Your task to perform on an android device: Open settings on Google Maps Image 0: 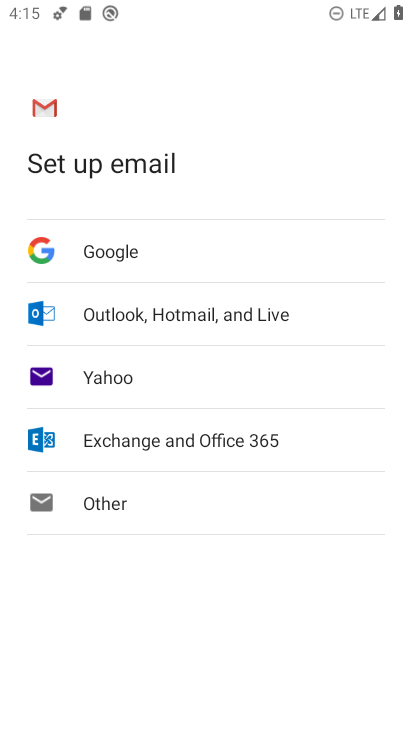
Step 0: press home button
Your task to perform on an android device: Open settings on Google Maps Image 1: 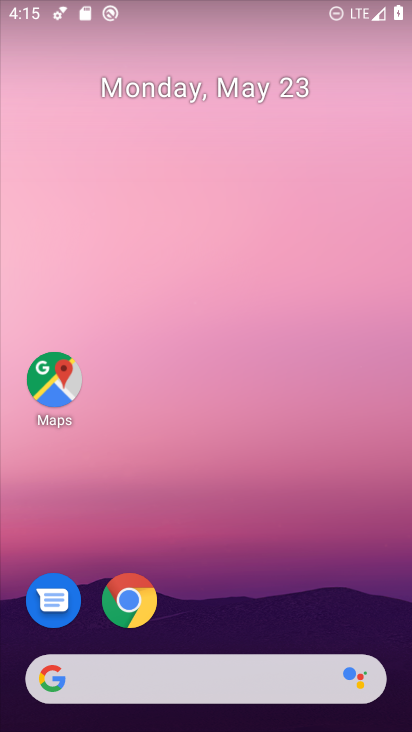
Step 1: click (53, 380)
Your task to perform on an android device: Open settings on Google Maps Image 2: 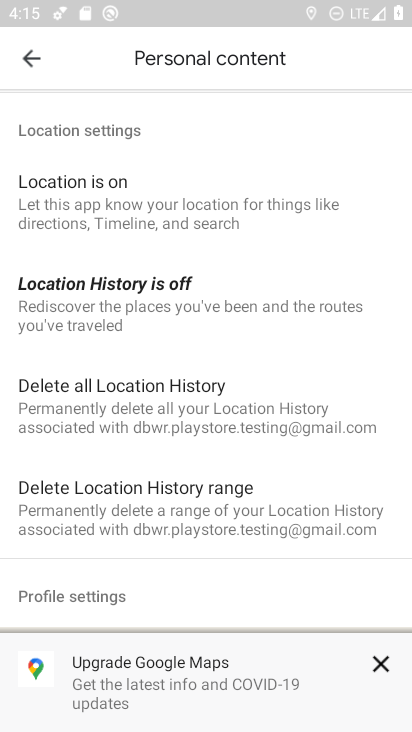
Step 2: click (29, 64)
Your task to perform on an android device: Open settings on Google Maps Image 3: 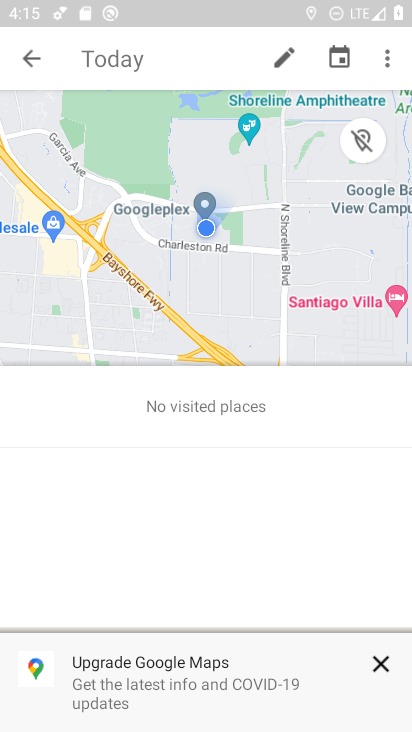
Step 3: click (29, 64)
Your task to perform on an android device: Open settings on Google Maps Image 4: 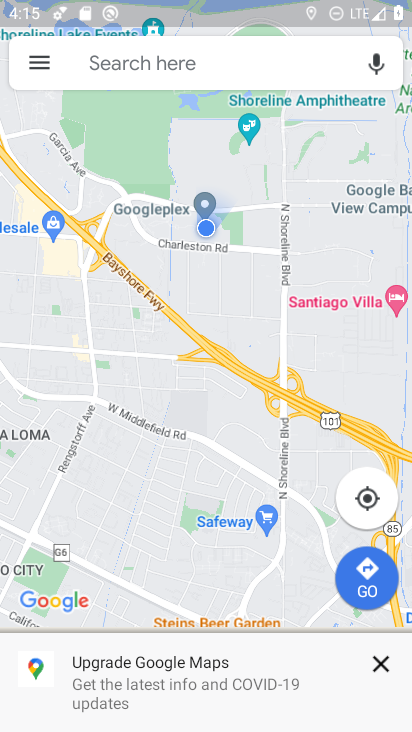
Step 4: click (30, 70)
Your task to perform on an android device: Open settings on Google Maps Image 5: 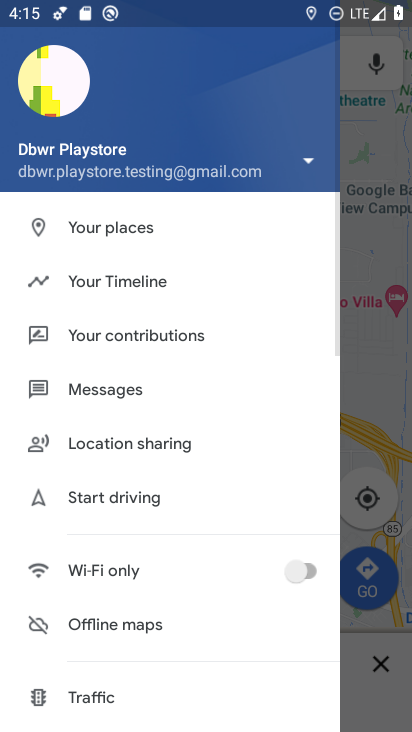
Step 5: drag from (228, 659) to (188, 0)
Your task to perform on an android device: Open settings on Google Maps Image 6: 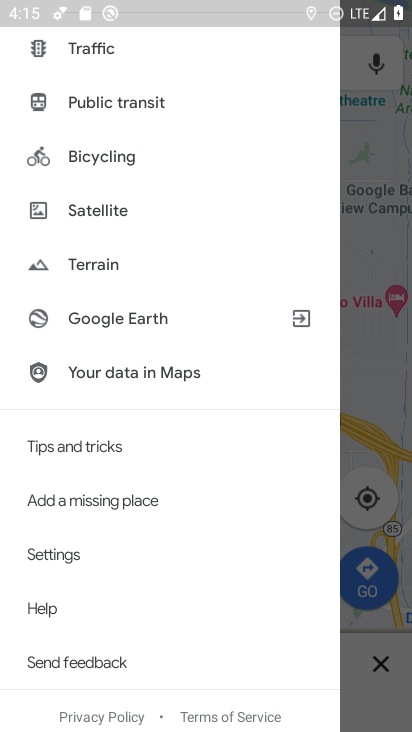
Step 6: click (33, 561)
Your task to perform on an android device: Open settings on Google Maps Image 7: 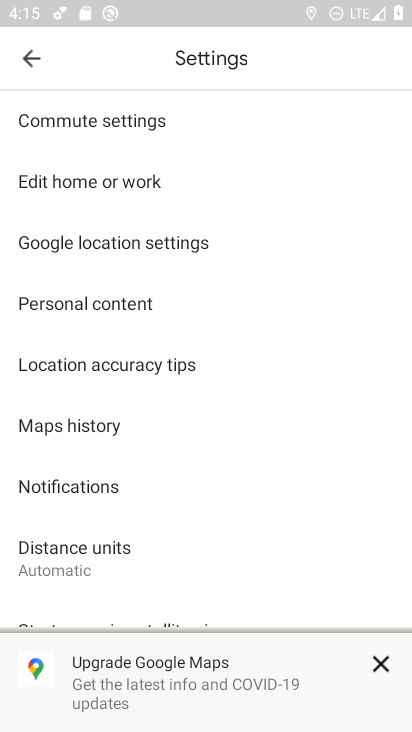
Step 7: task complete